Your task to perform on an android device: Go to Yahoo.com Image 0: 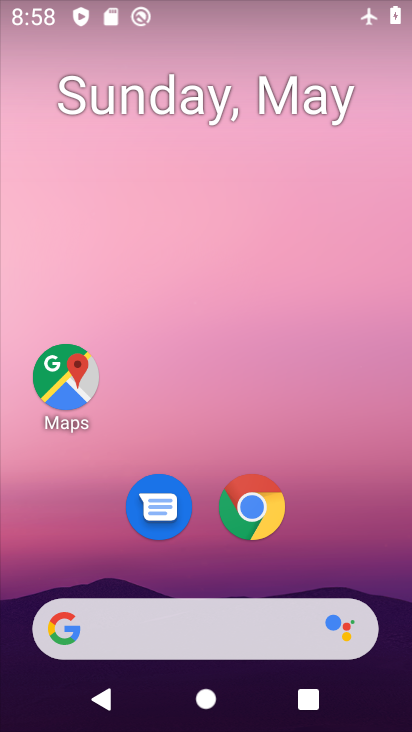
Step 0: click (239, 547)
Your task to perform on an android device: Go to Yahoo.com Image 1: 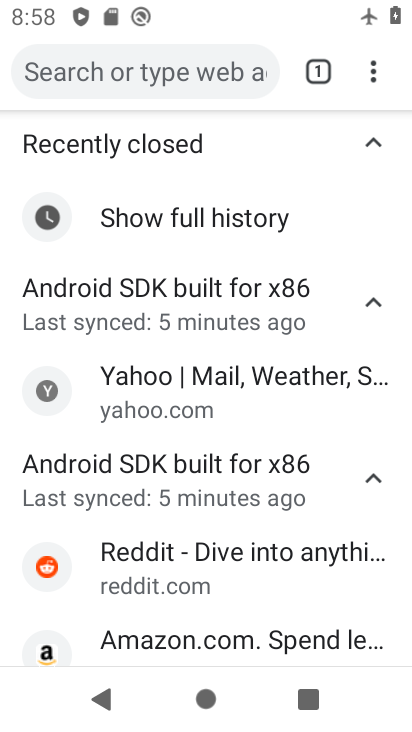
Step 1: click (175, 413)
Your task to perform on an android device: Go to Yahoo.com Image 2: 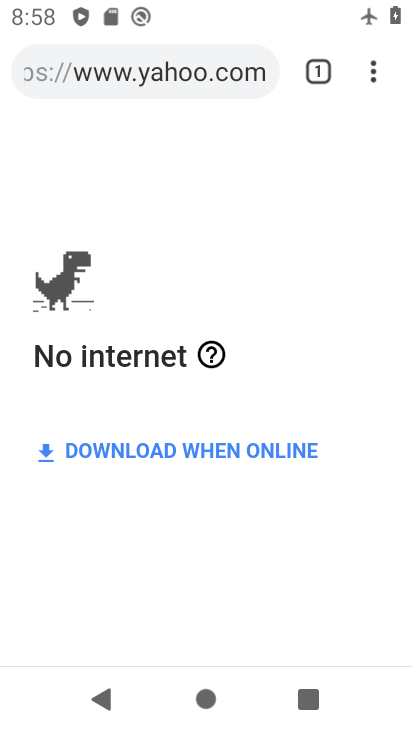
Step 2: task complete